Your task to perform on an android device: search for starred emails in the gmail app Image 0: 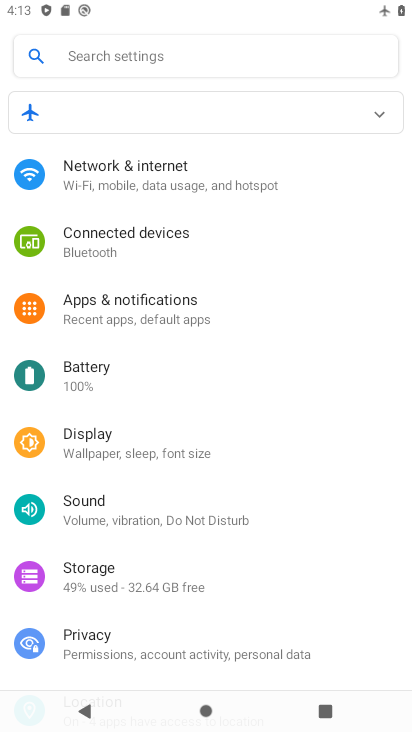
Step 0: press home button
Your task to perform on an android device: search for starred emails in the gmail app Image 1: 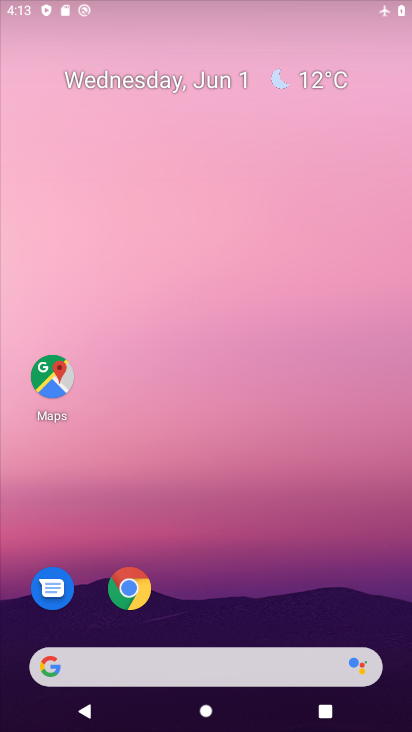
Step 1: drag from (343, 485) to (300, 35)
Your task to perform on an android device: search for starred emails in the gmail app Image 2: 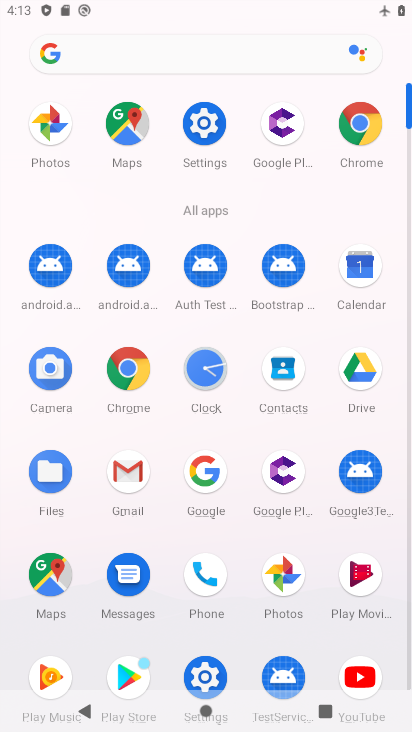
Step 2: click (119, 457)
Your task to perform on an android device: search for starred emails in the gmail app Image 3: 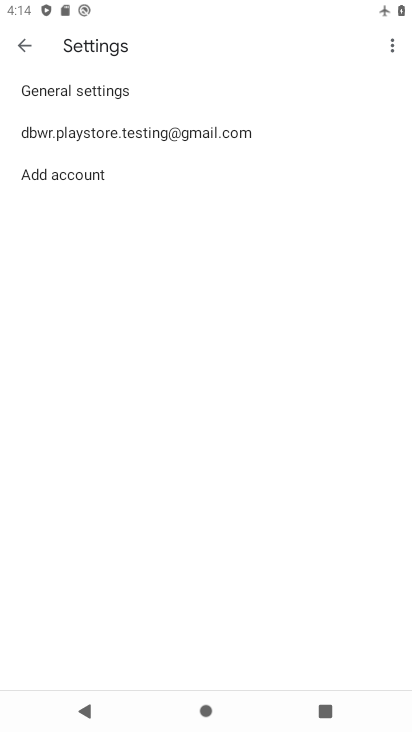
Step 3: click (33, 58)
Your task to perform on an android device: search for starred emails in the gmail app Image 4: 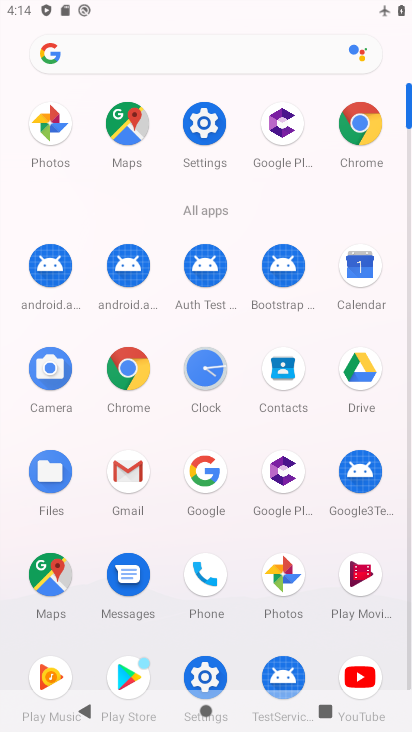
Step 4: click (138, 480)
Your task to perform on an android device: search for starred emails in the gmail app Image 5: 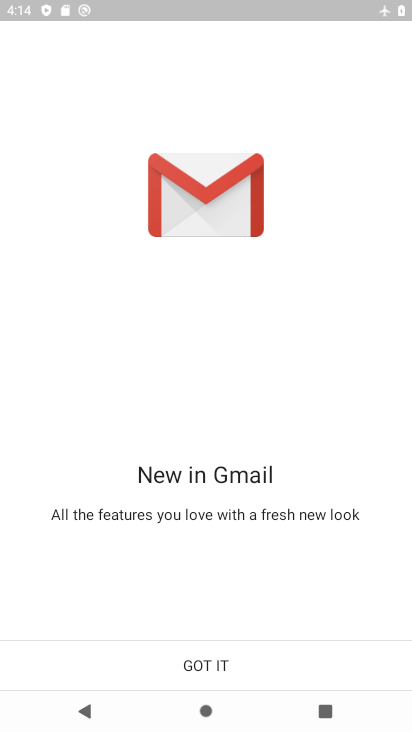
Step 5: click (240, 670)
Your task to perform on an android device: search for starred emails in the gmail app Image 6: 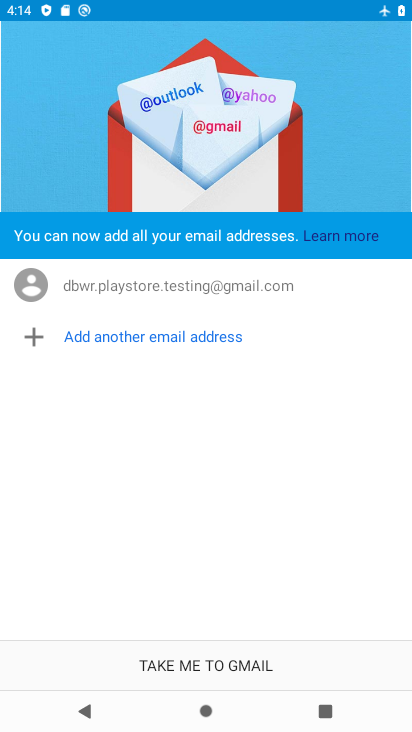
Step 6: click (251, 647)
Your task to perform on an android device: search for starred emails in the gmail app Image 7: 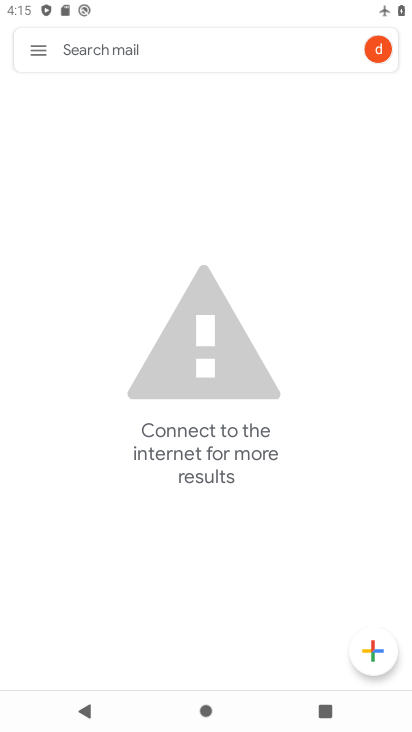
Step 7: click (41, 51)
Your task to perform on an android device: search for starred emails in the gmail app Image 8: 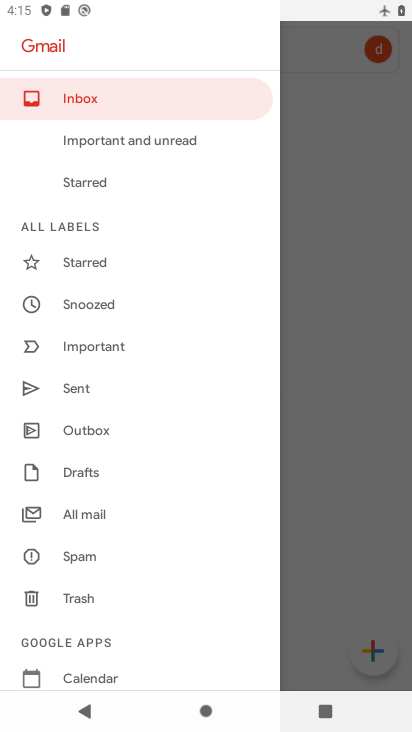
Step 8: click (105, 260)
Your task to perform on an android device: search for starred emails in the gmail app Image 9: 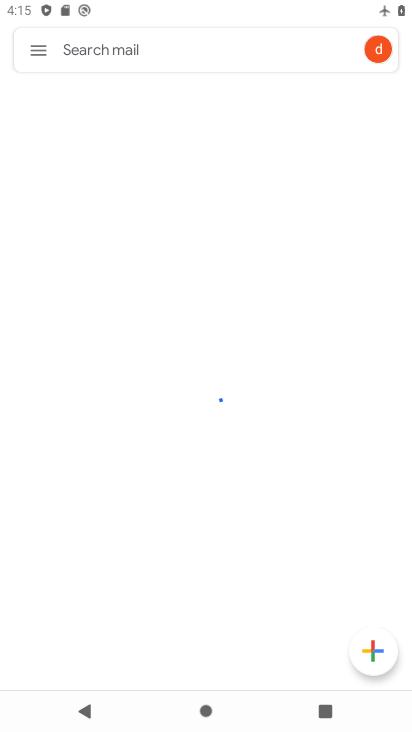
Step 9: task complete